Your task to perform on an android device: open app "Lyft - Rideshare, Bikes, Scooters & Transit" Image 0: 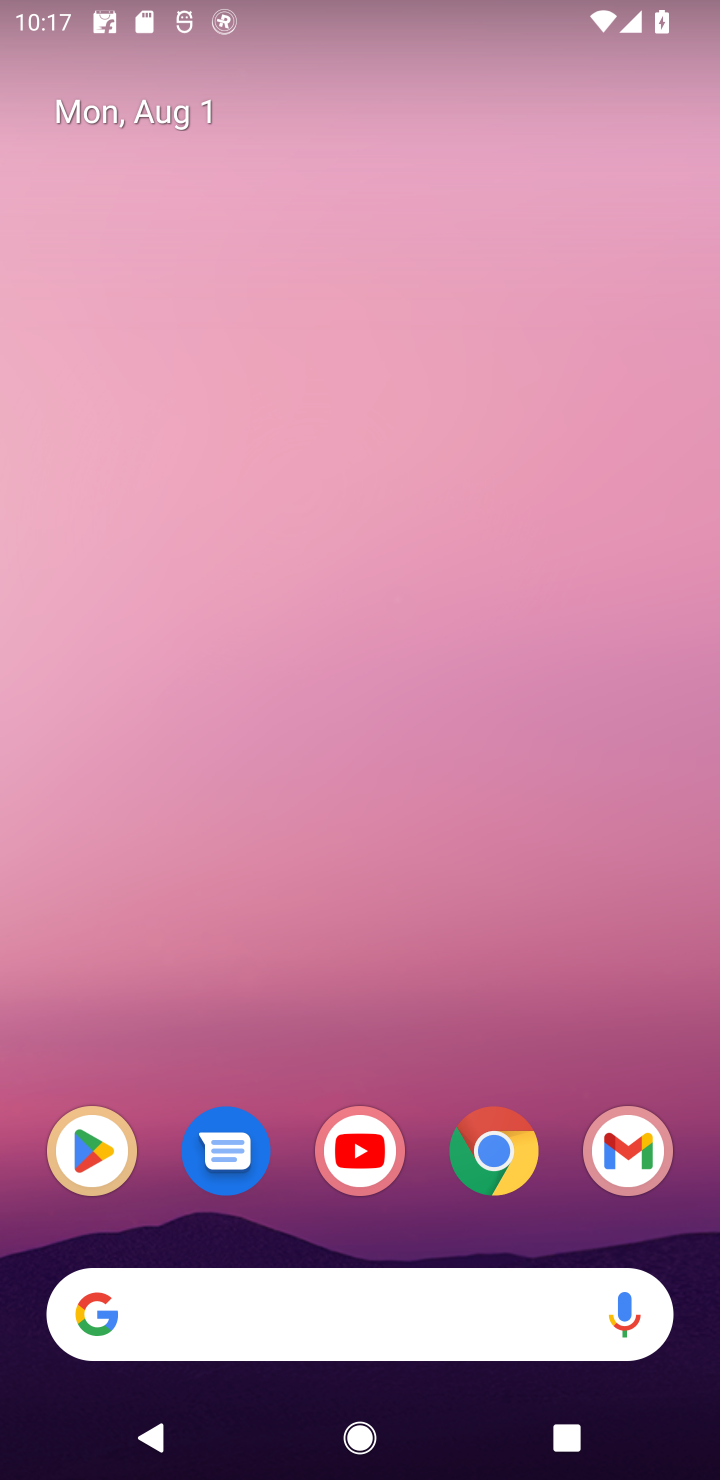
Step 0: click (116, 1141)
Your task to perform on an android device: open app "Lyft - Rideshare, Bikes, Scooters & Transit" Image 1: 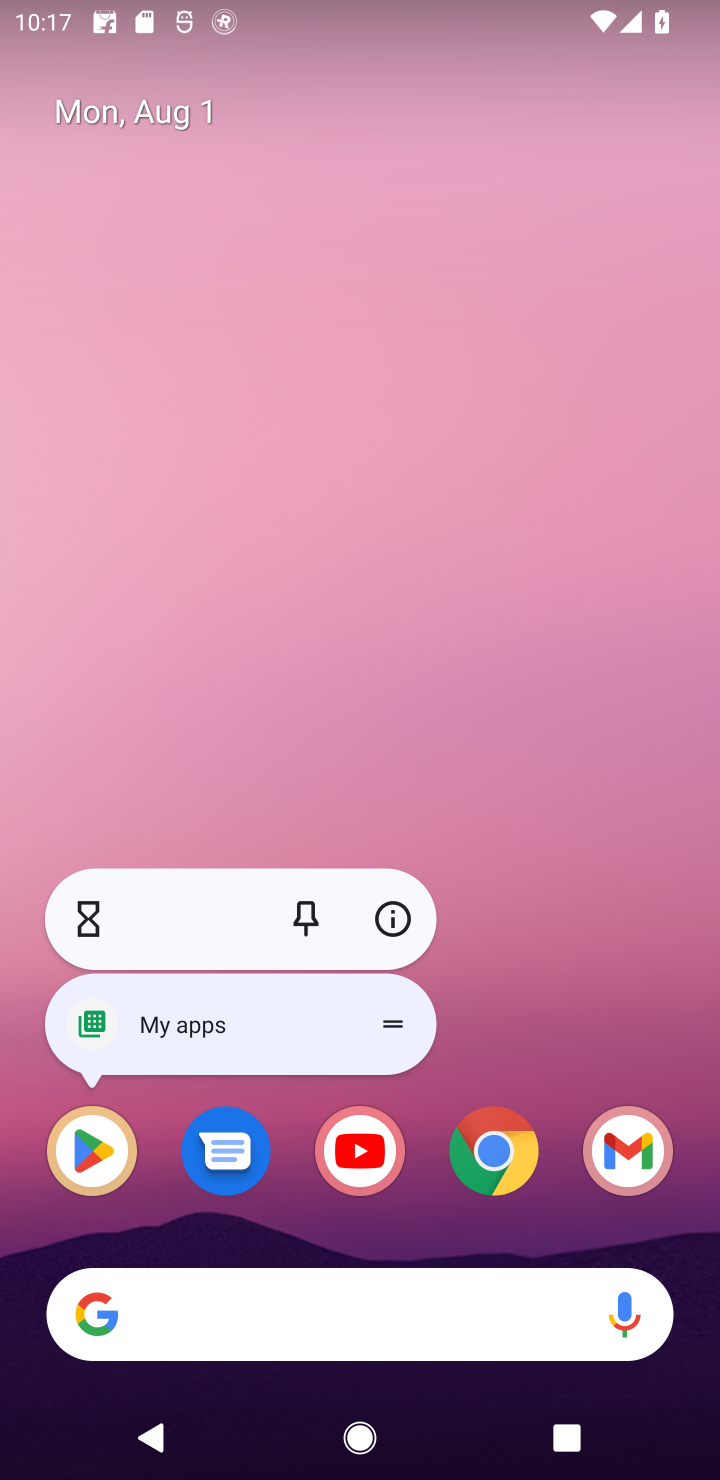
Step 1: click (109, 1150)
Your task to perform on an android device: open app "Lyft - Rideshare, Bikes, Scooters & Transit" Image 2: 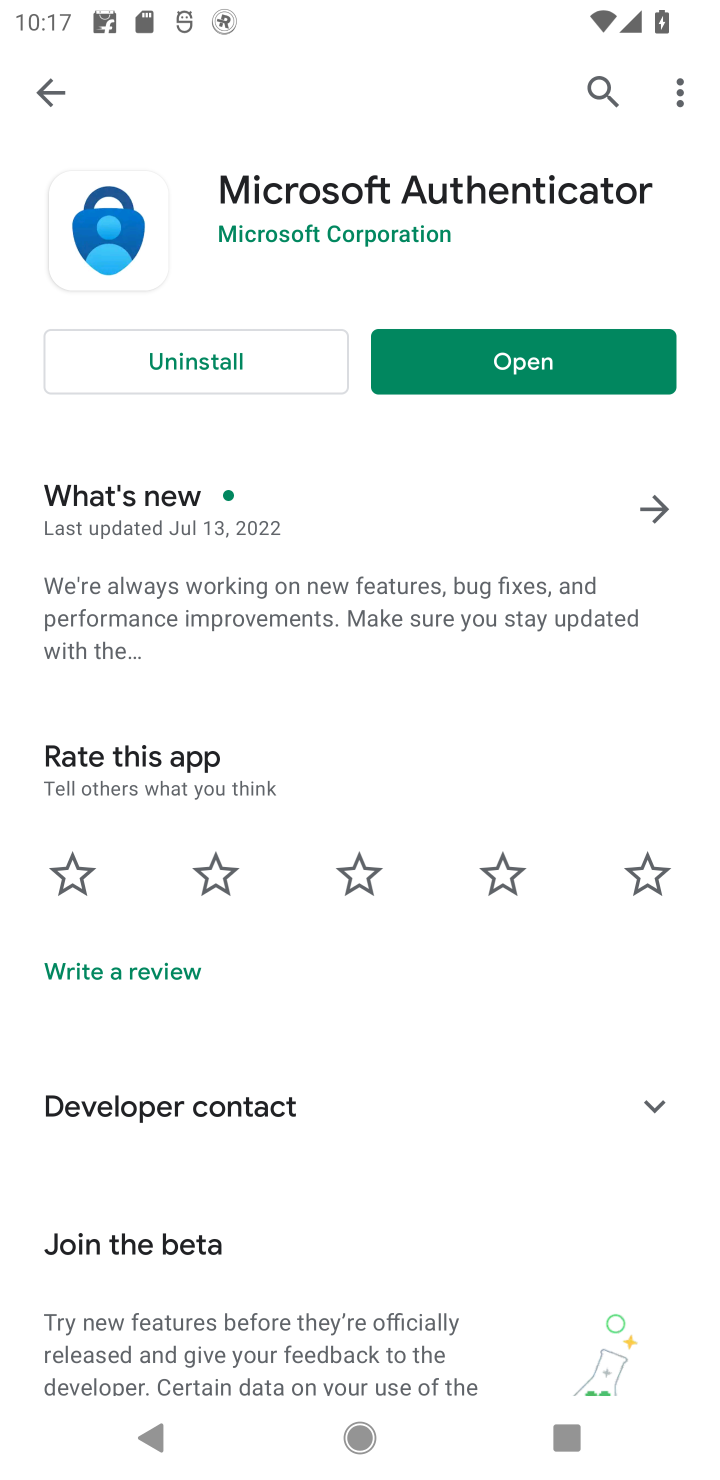
Step 2: click (656, 98)
Your task to perform on an android device: open app "Lyft - Rideshare, Bikes, Scooters & Transit" Image 3: 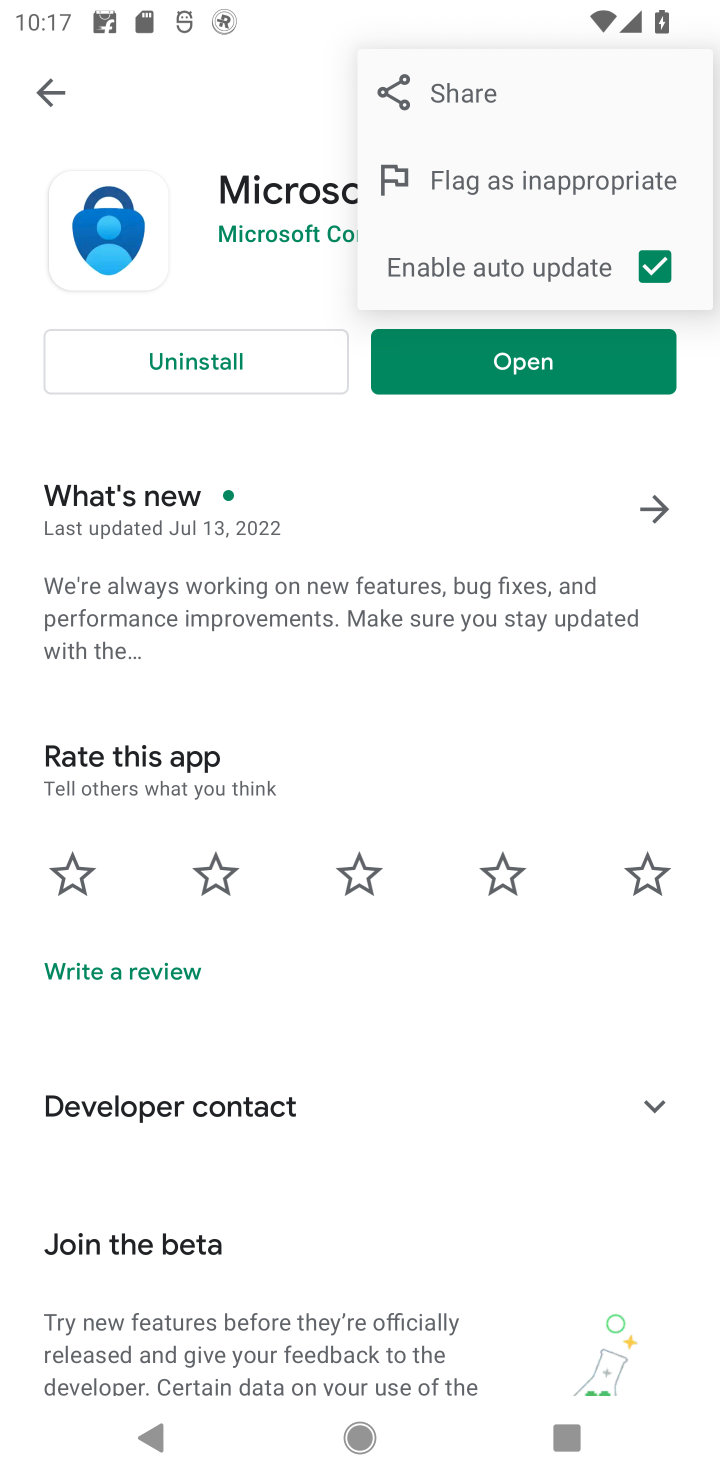
Step 3: click (366, 503)
Your task to perform on an android device: open app "Lyft - Rideshare, Bikes, Scooters & Transit" Image 4: 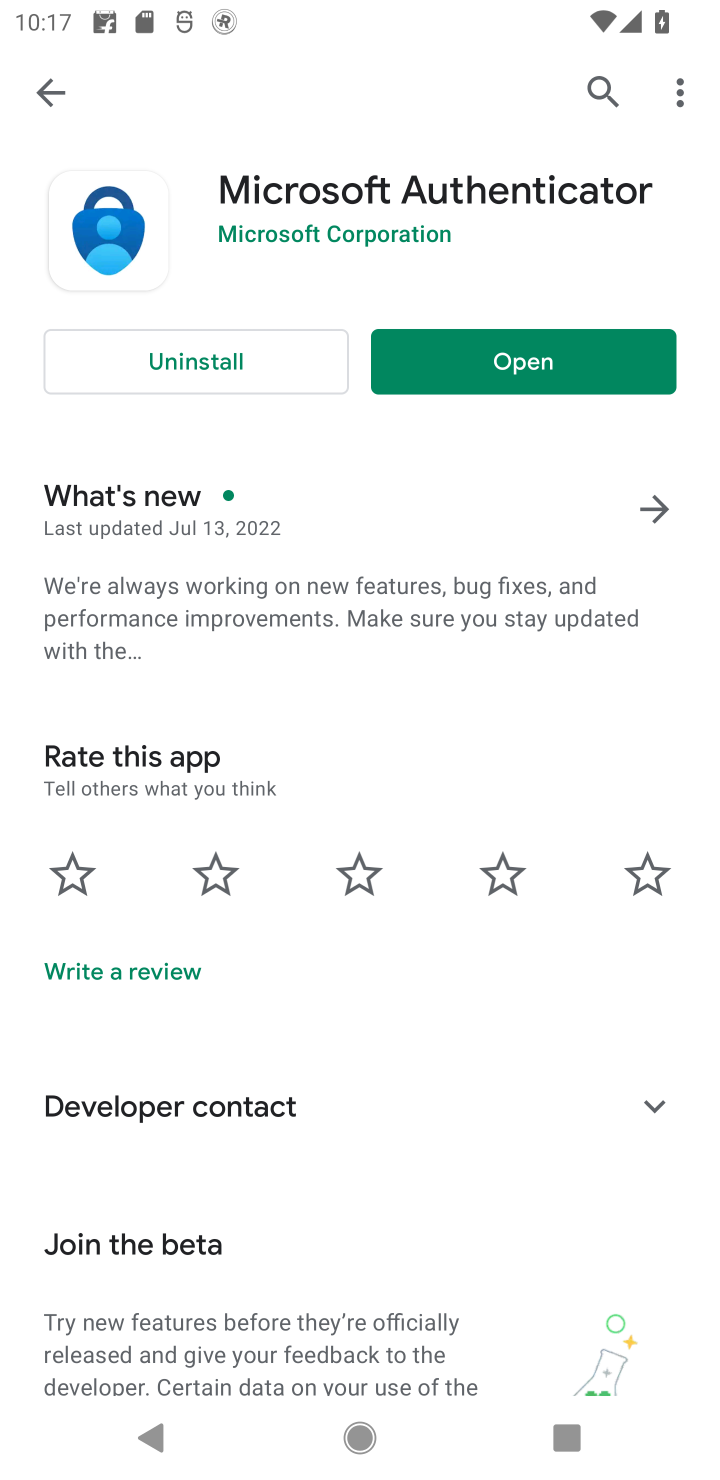
Step 4: click (595, 88)
Your task to perform on an android device: open app "Lyft - Rideshare, Bikes, Scooters & Transit" Image 5: 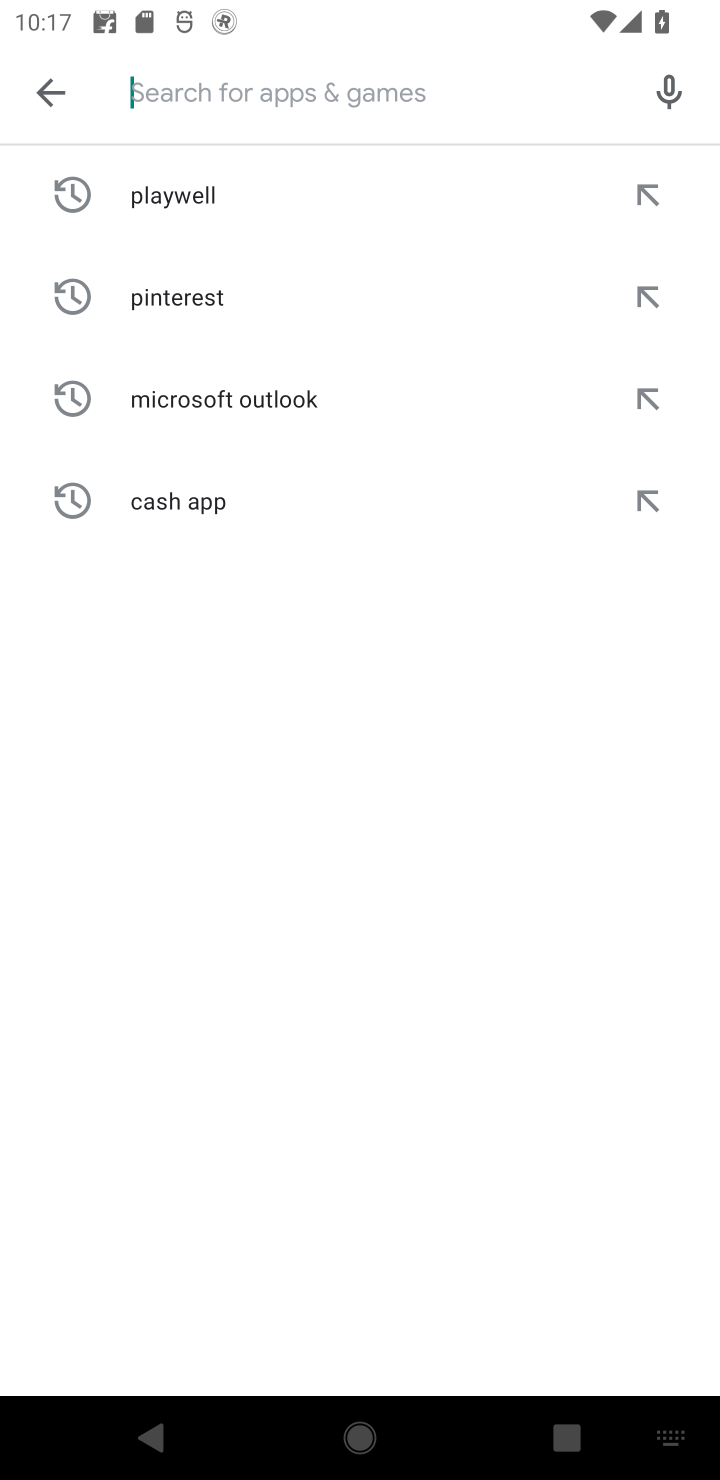
Step 5: type "Lyft - Rideshare, Bikes, Scooters & Transit"
Your task to perform on an android device: open app "Lyft - Rideshare, Bikes, Scooters & Transit" Image 6: 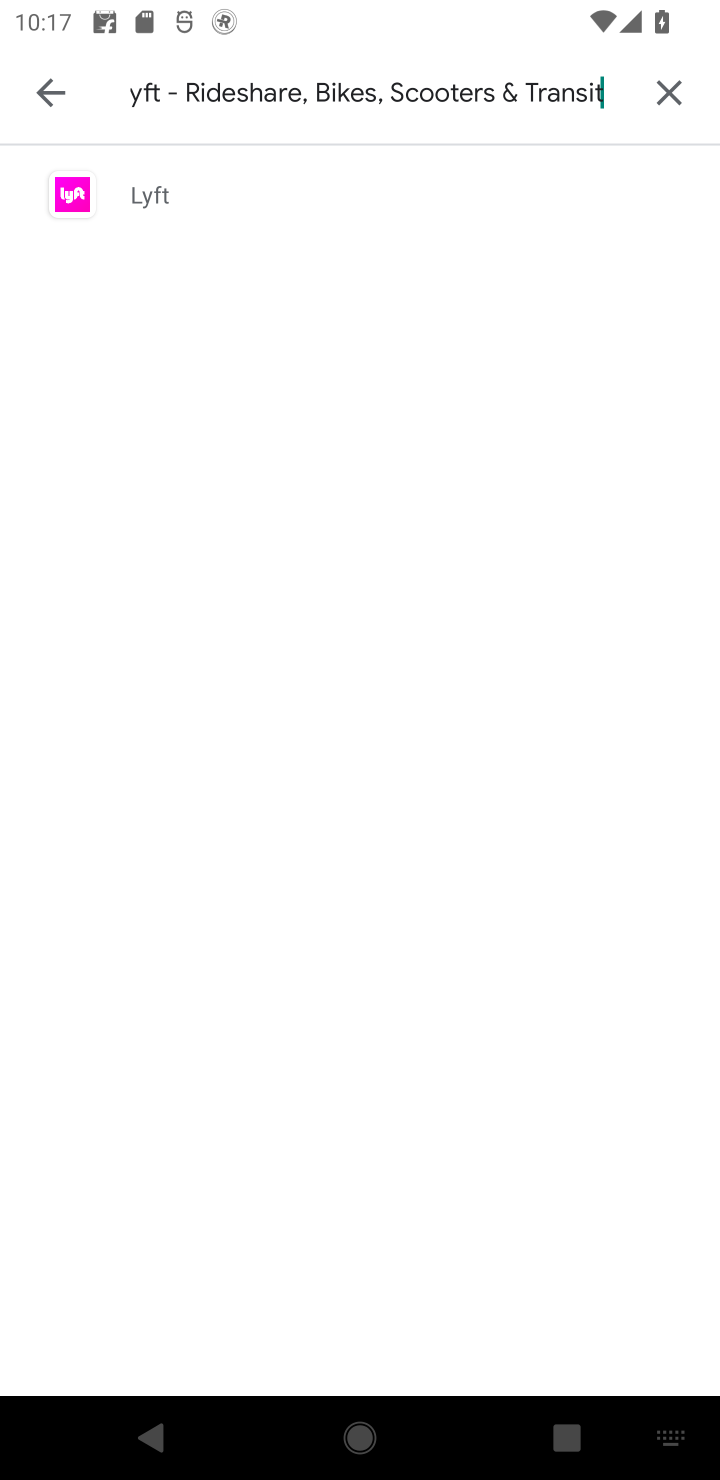
Step 6: type ""
Your task to perform on an android device: open app "Lyft - Rideshare, Bikes, Scooters & Transit" Image 7: 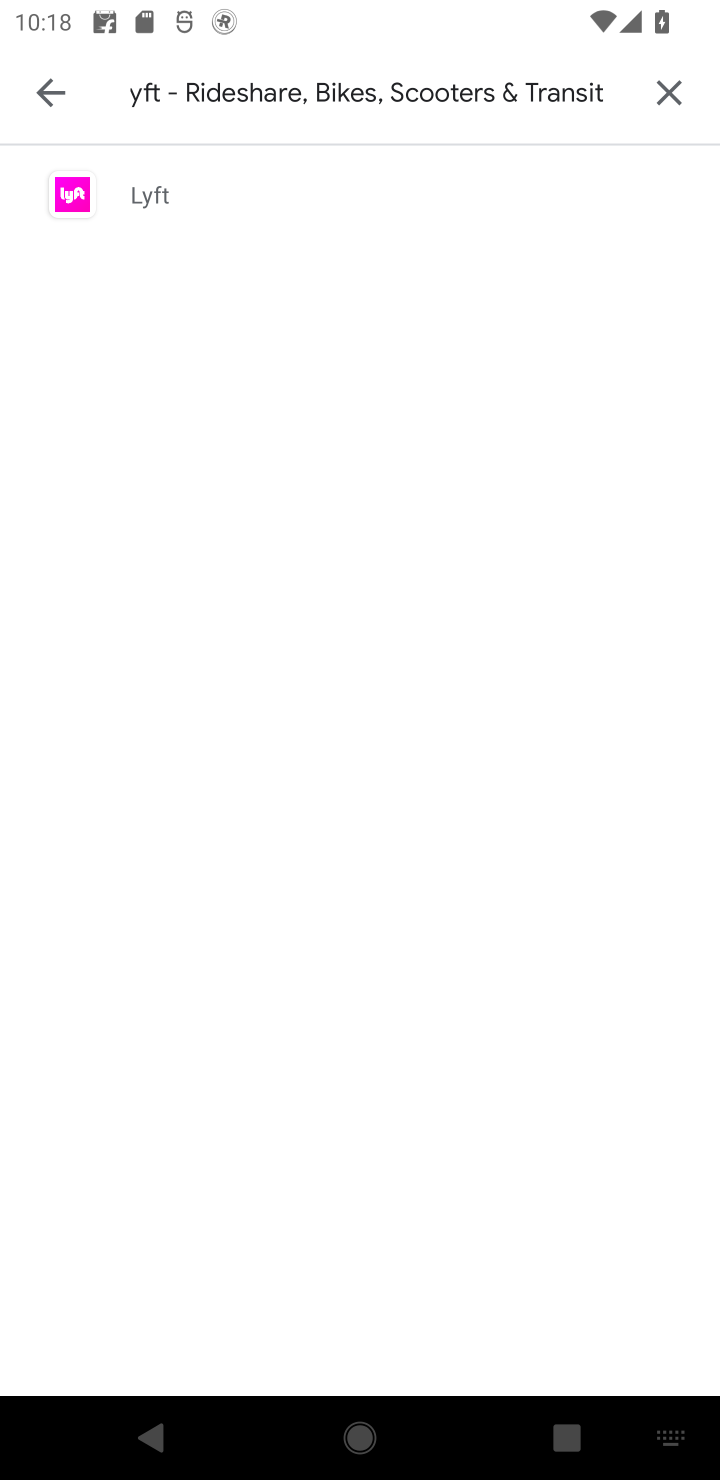
Step 7: click (169, 189)
Your task to perform on an android device: open app "Lyft - Rideshare, Bikes, Scooters & Transit" Image 8: 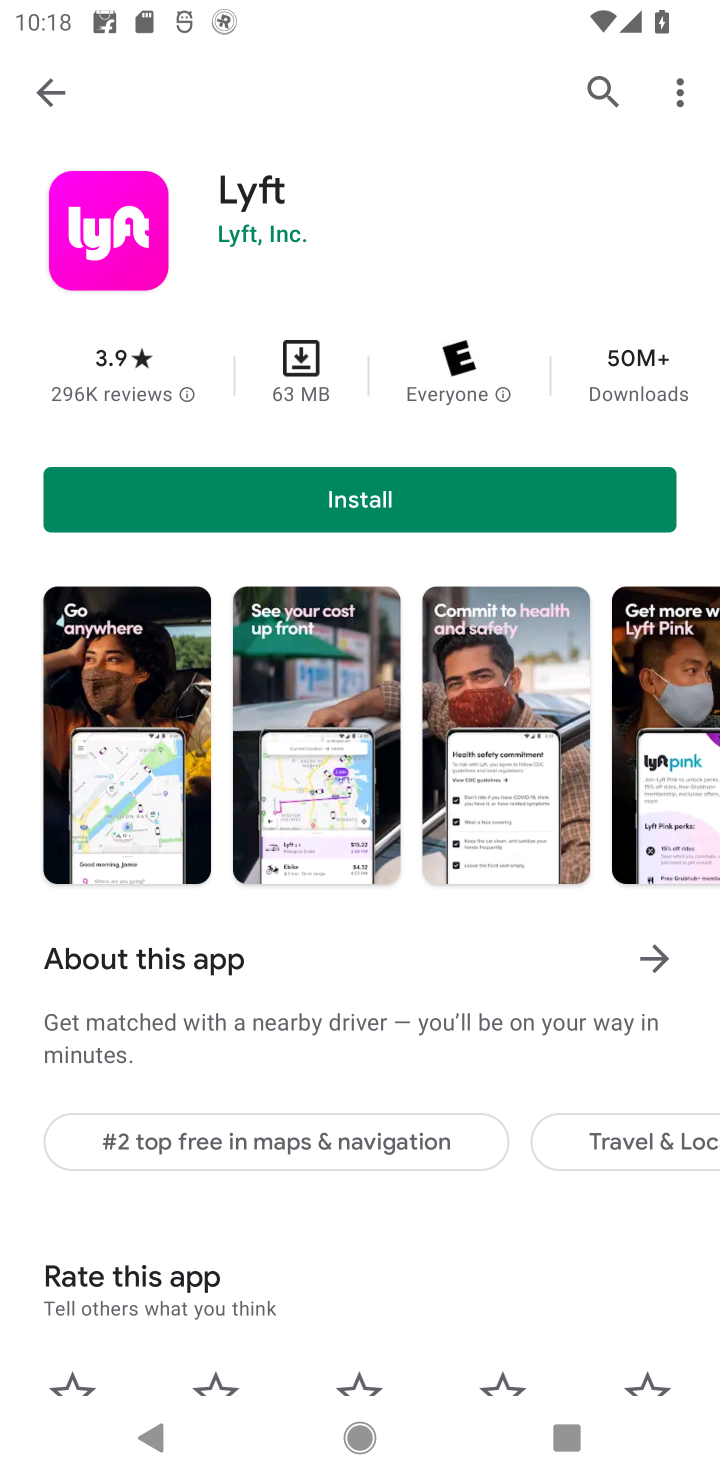
Step 8: task complete